Your task to perform on an android device: Open Chrome and go to the settings page Image 0: 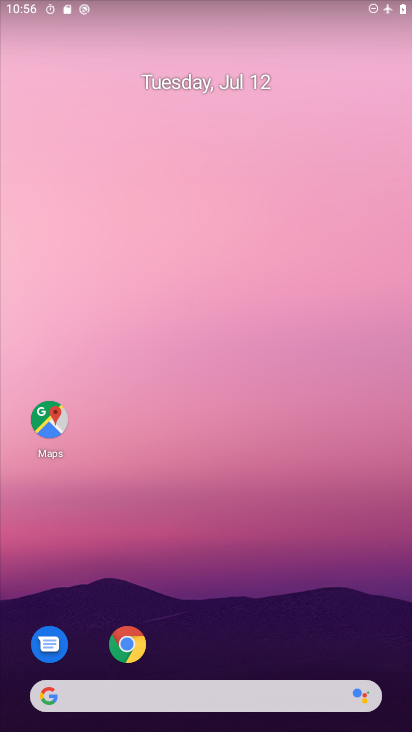
Step 0: click (118, 628)
Your task to perform on an android device: Open Chrome and go to the settings page Image 1: 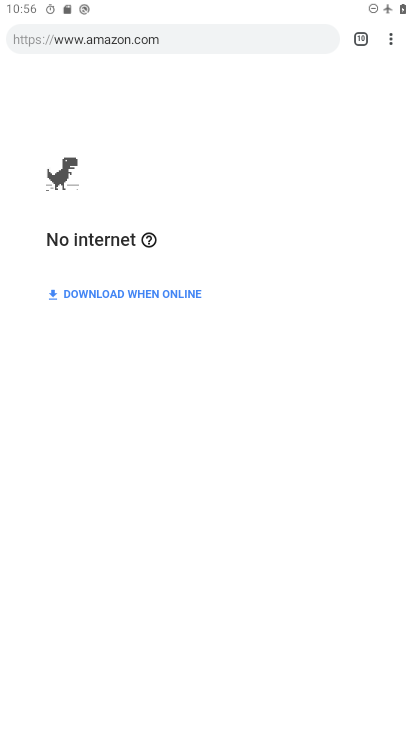
Step 1: click (393, 50)
Your task to perform on an android device: Open Chrome and go to the settings page Image 2: 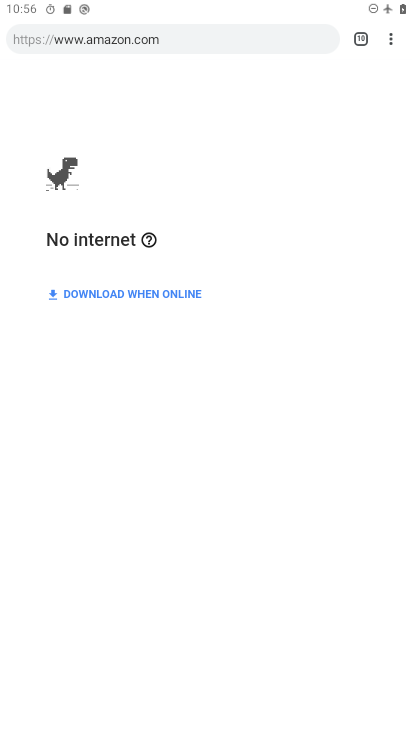
Step 2: click (394, 41)
Your task to perform on an android device: Open Chrome and go to the settings page Image 3: 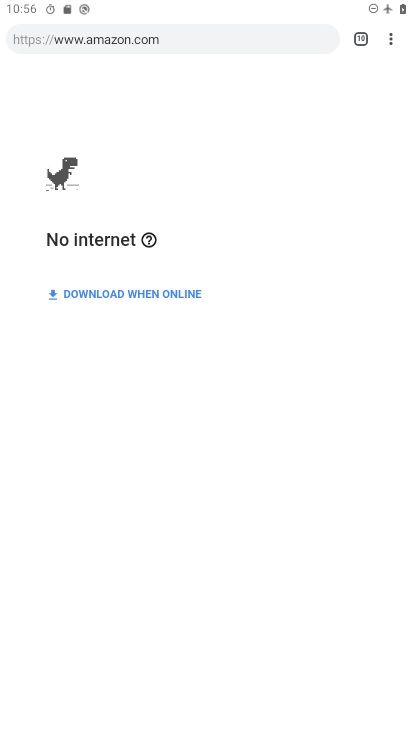
Step 3: click (392, 32)
Your task to perform on an android device: Open Chrome and go to the settings page Image 4: 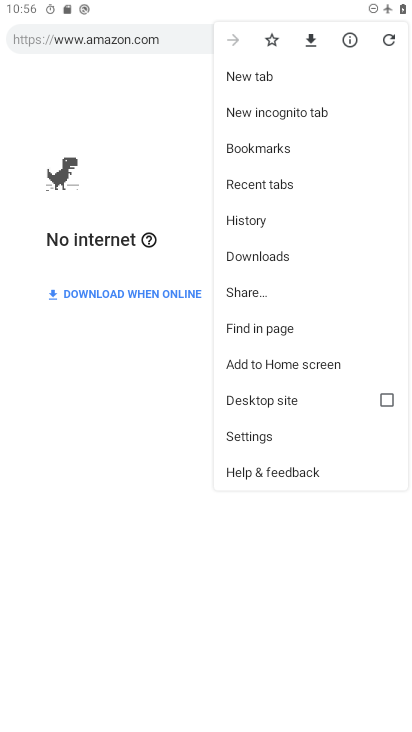
Step 4: click (267, 431)
Your task to perform on an android device: Open Chrome and go to the settings page Image 5: 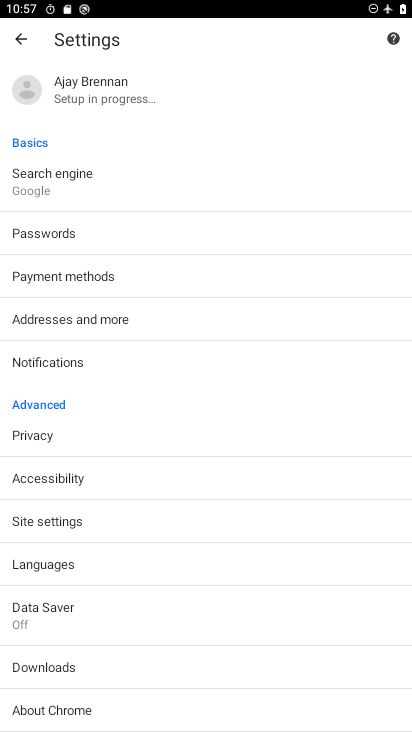
Step 5: task complete